Your task to perform on an android device: change the clock display to analog Image 0: 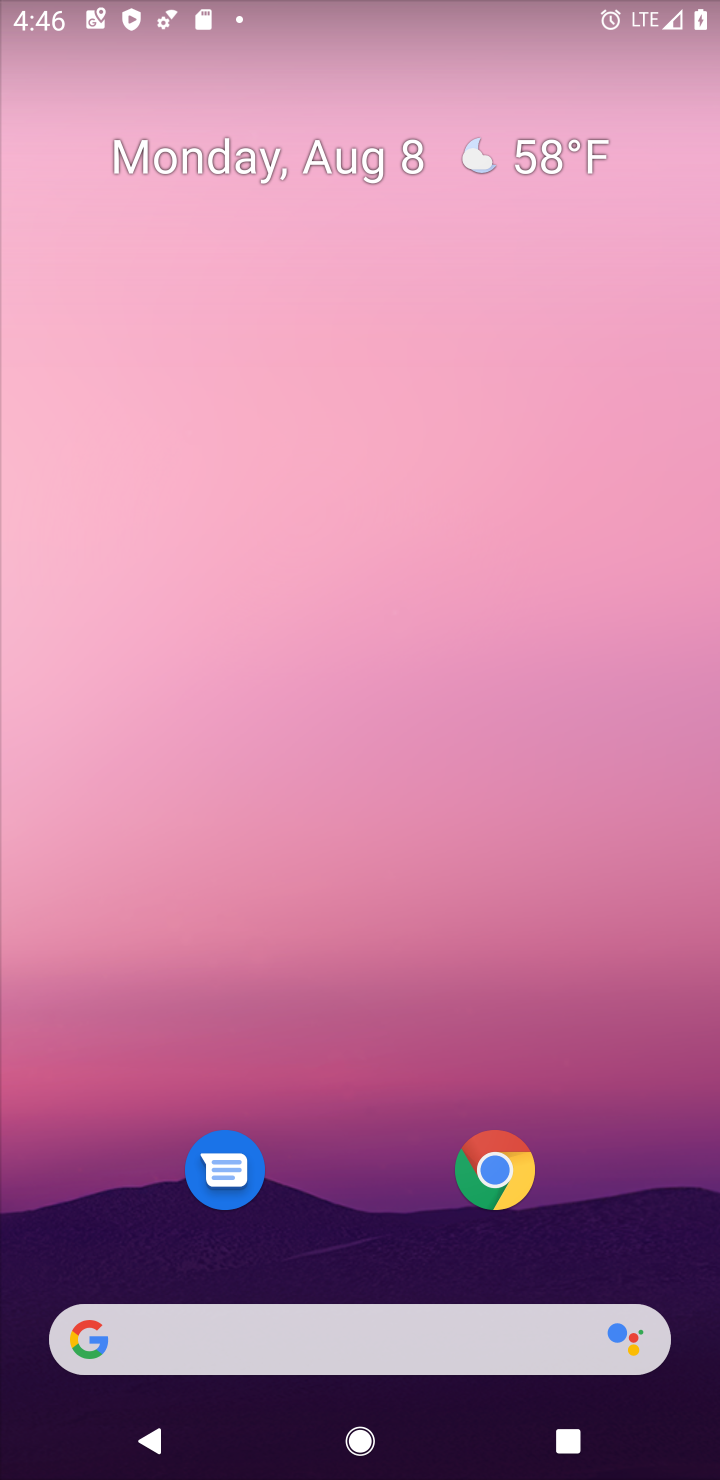
Step 0: drag from (361, 1123) to (335, 285)
Your task to perform on an android device: change the clock display to analog Image 1: 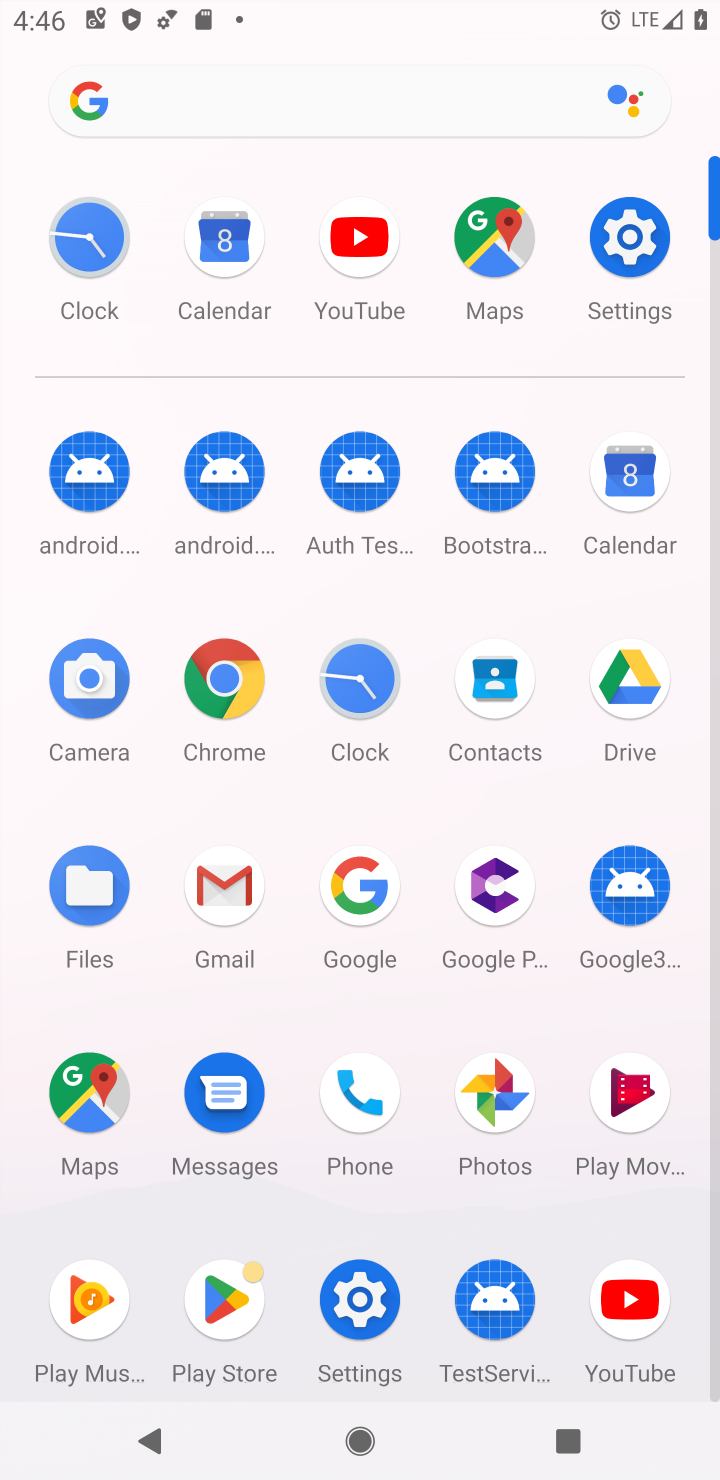
Step 1: click (101, 275)
Your task to perform on an android device: change the clock display to analog Image 2: 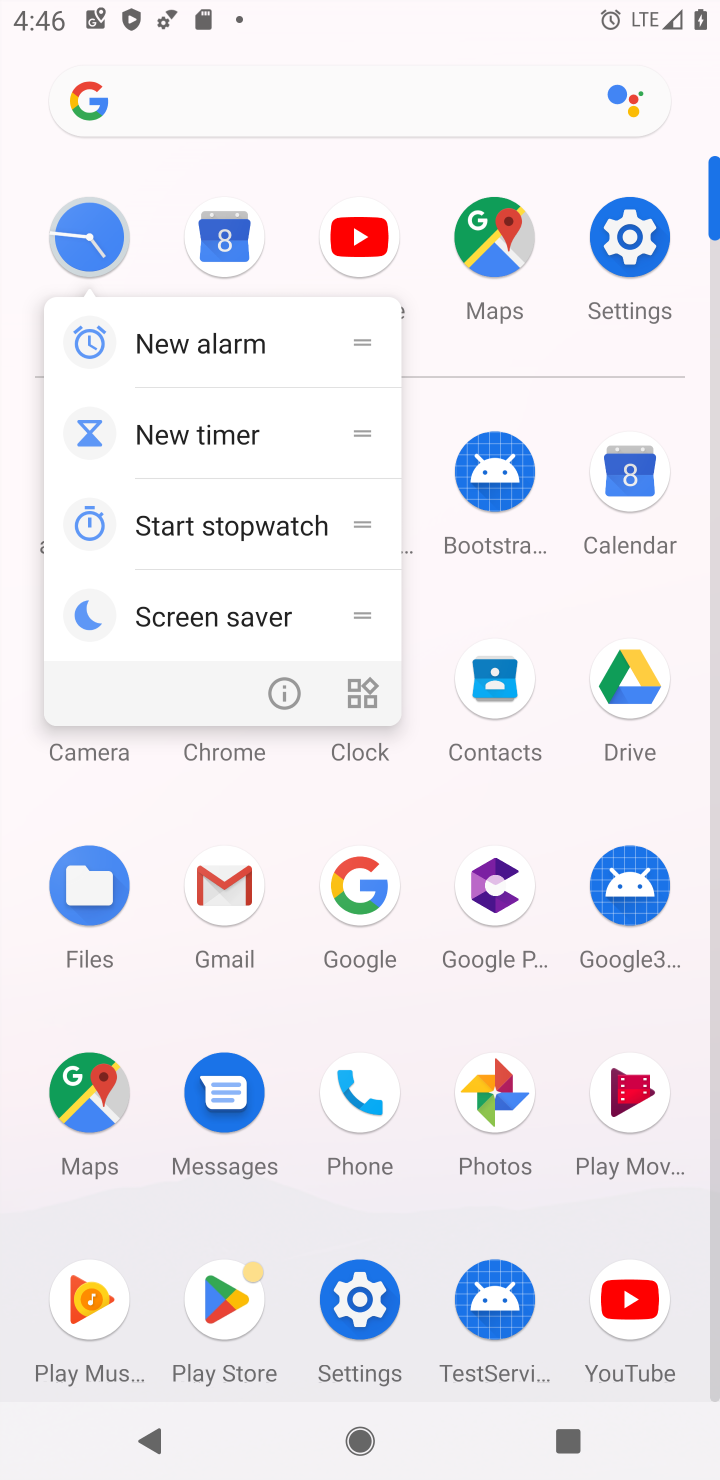
Step 2: click (99, 272)
Your task to perform on an android device: change the clock display to analog Image 3: 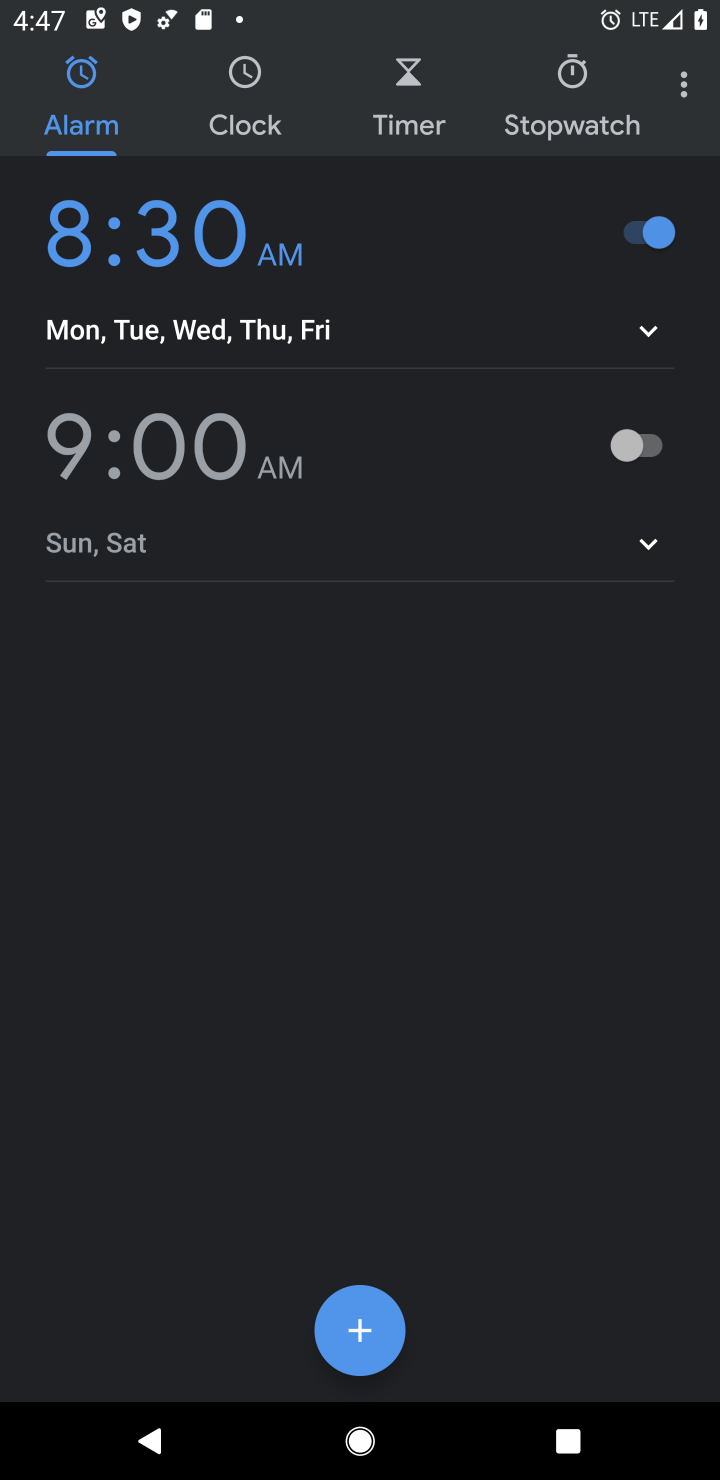
Step 3: click (682, 101)
Your task to perform on an android device: change the clock display to analog Image 4: 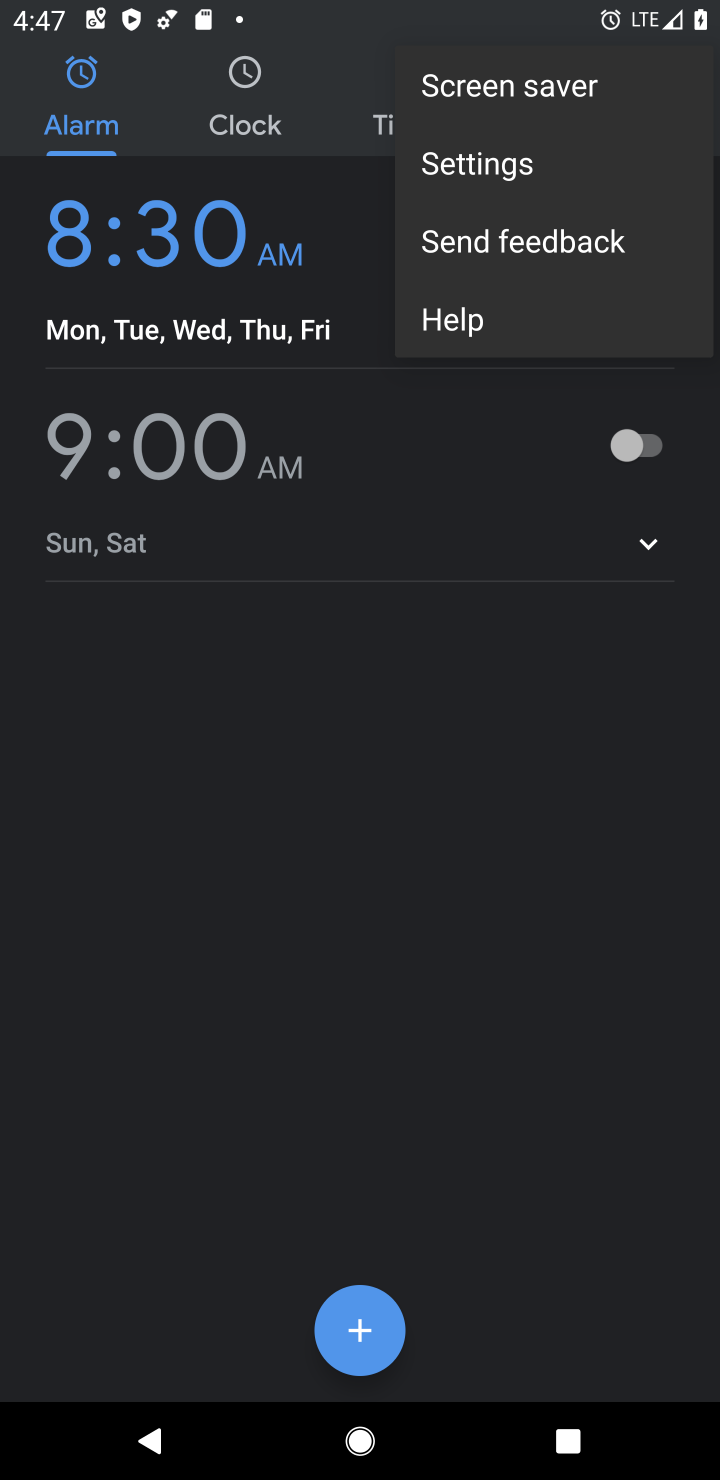
Step 4: click (554, 166)
Your task to perform on an android device: change the clock display to analog Image 5: 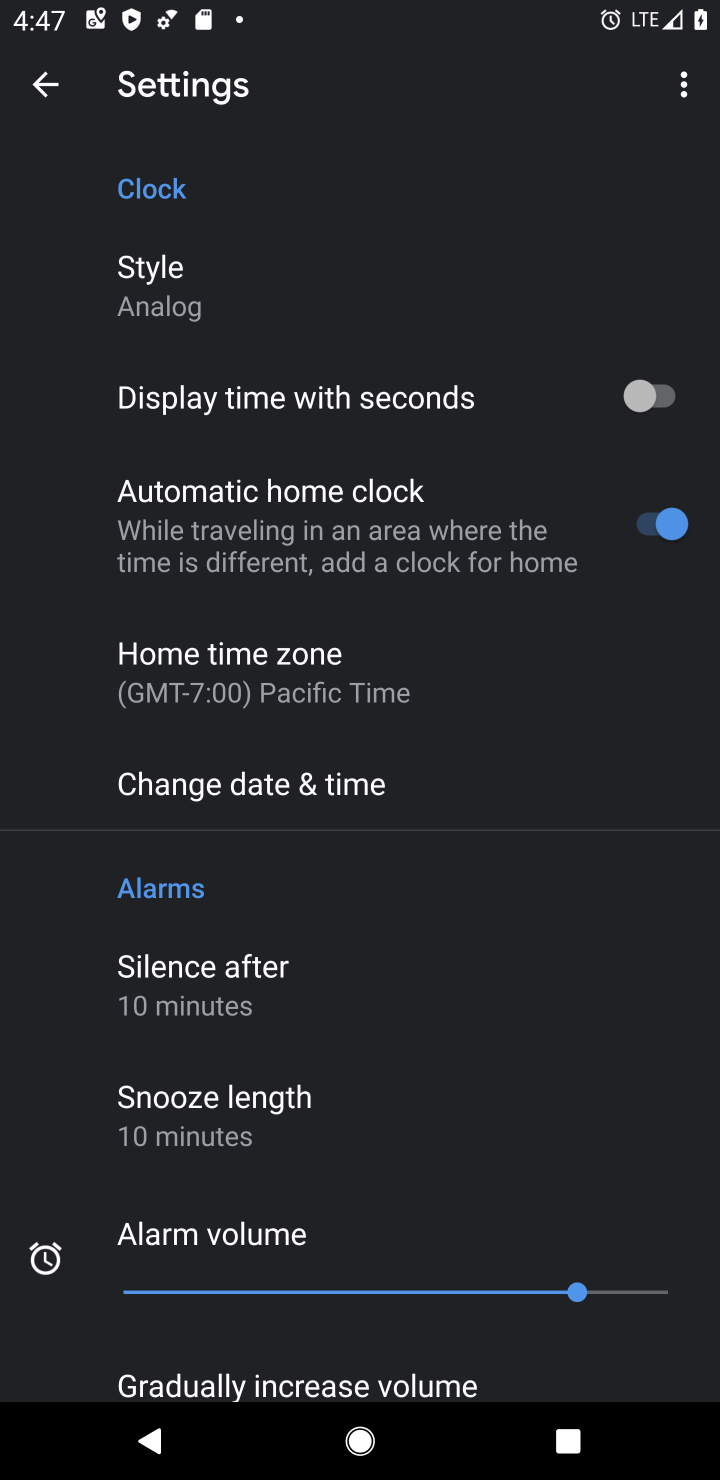
Step 5: task complete